Your task to perform on an android device: Open Google Chrome Image 0: 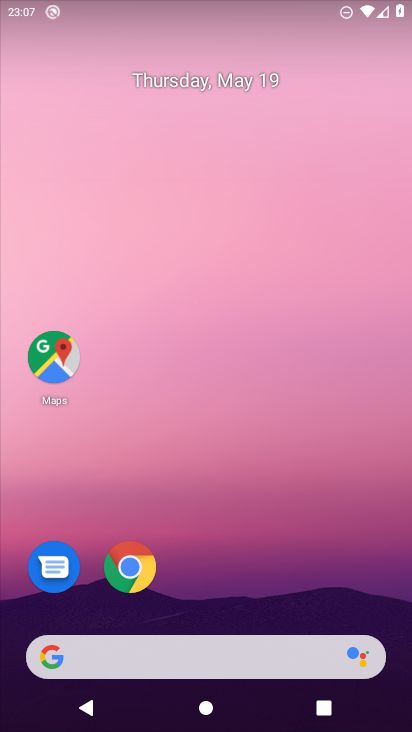
Step 0: click (118, 563)
Your task to perform on an android device: Open Google Chrome Image 1: 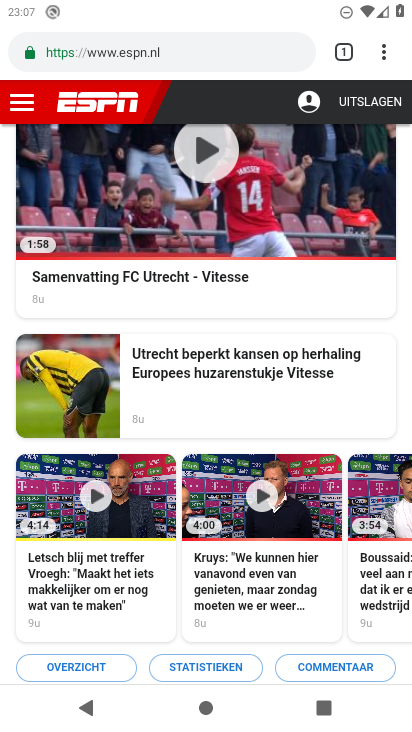
Step 1: drag from (227, 622) to (236, 128)
Your task to perform on an android device: Open Google Chrome Image 2: 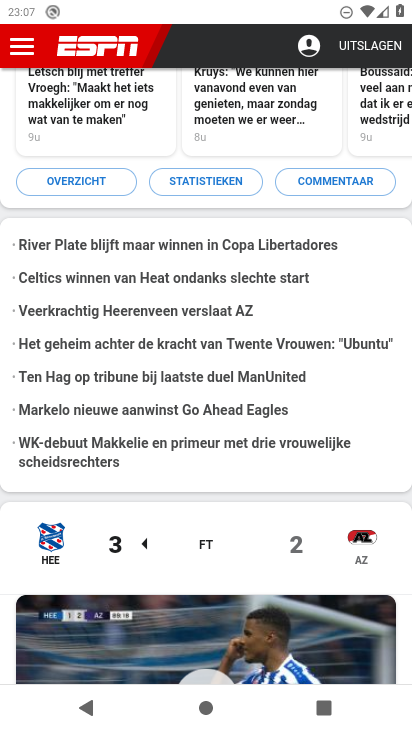
Step 2: drag from (320, 138) to (267, 651)
Your task to perform on an android device: Open Google Chrome Image 3: 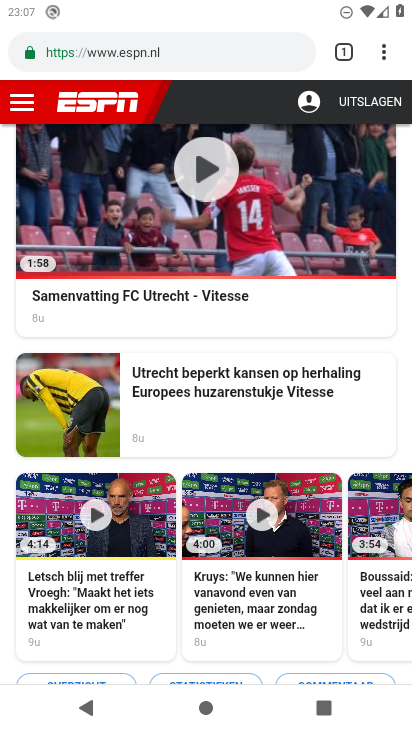
Step 3: click (338, 48)
Your task to perform on an android device: Open Google Chrome Image 4: 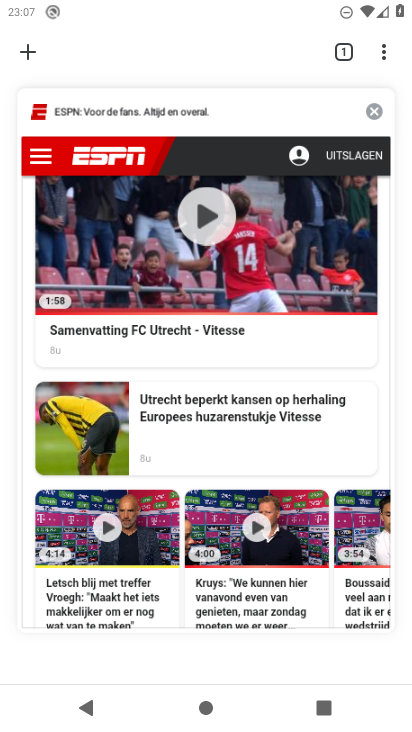
Step 4: click (378, 107)
Your task to perform on an android device: Open Google Chrome Image 5: 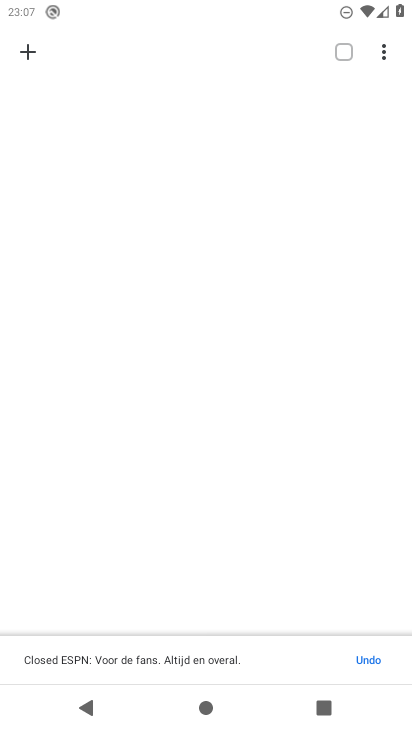
Step 5: click (27, 54)
Your task to perform on an android device: Open Google Chrome Image 6: 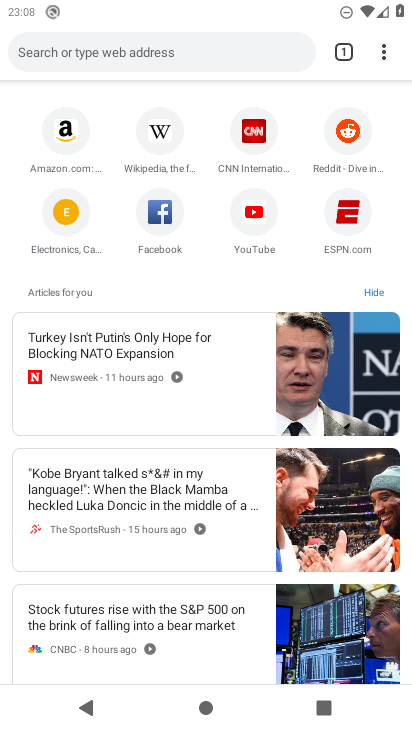
Step 6: task complete